Your task to perform on an android device: toggle show notifications on the lock screen Image 0: 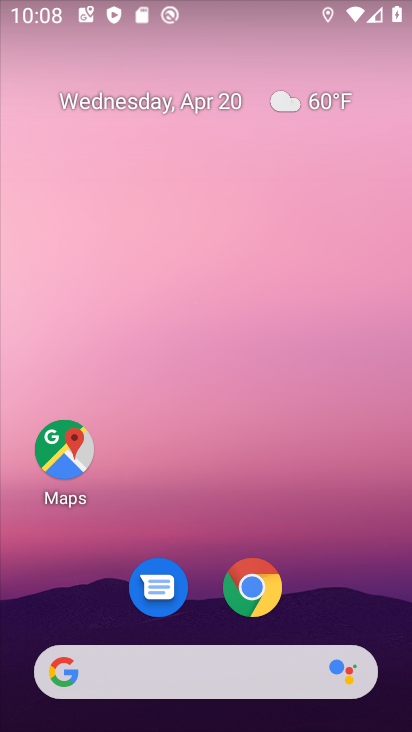
Step 0: drag from (325, 581) to (94, 82)
Your task to perform on an android device: toggle show notifications on the lock screen Image 1: 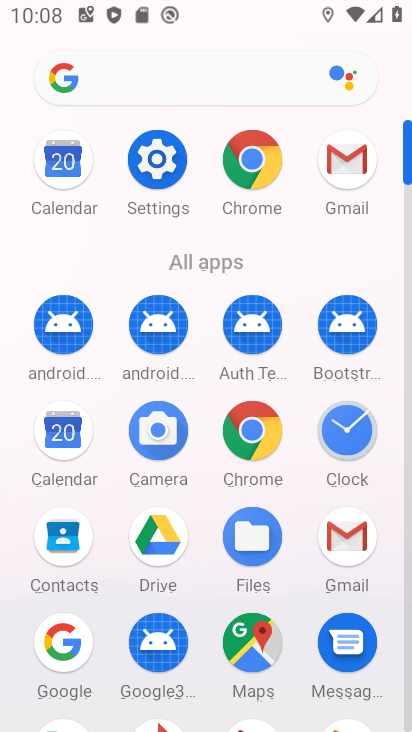
Step 1: click (174, 156)
Your task to perform on an android device: toggle show notifications on the lock screen Image 2: 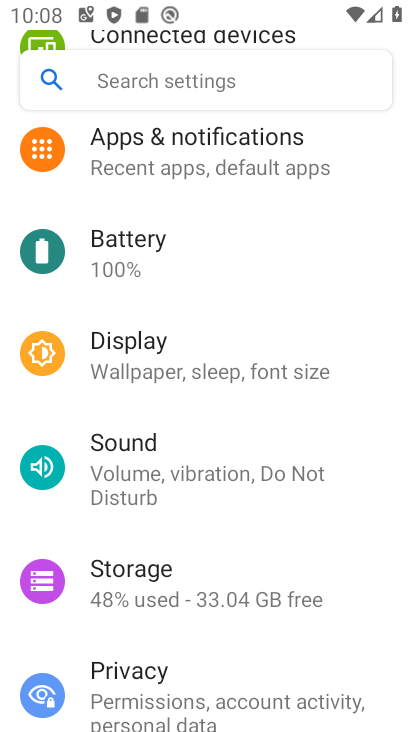
Step 2: drag from (167, 690) to (131, 700)
Your task to perform on an android device: toggle show notifications on the lock screen Image 3: 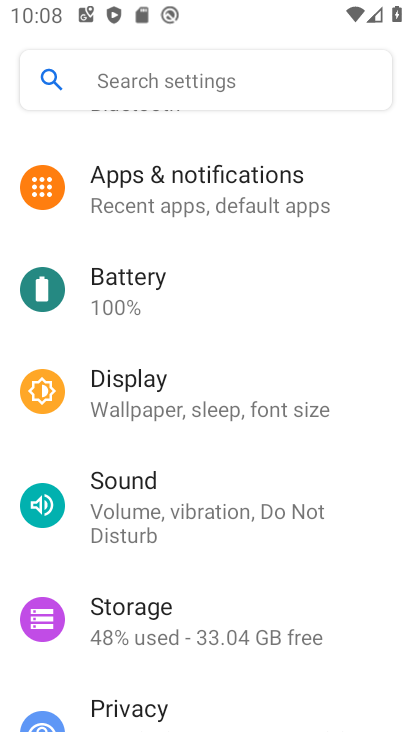
Step 3: drag from (237, 223) to (194, 463)
Your task to perform on an android device: toggle show notifications on the lock screen Image 4: 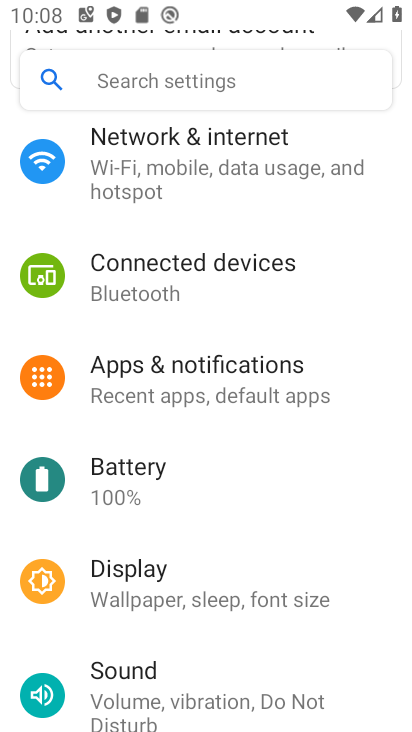
Step 4: click (174, 401)
Your task to perform on an android device: toggle show notifications on the lock screen Image 5: 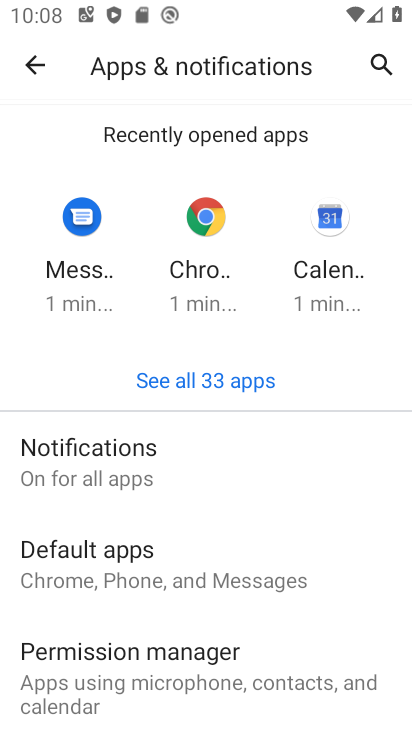
Step 5: click (118, 471)
Your task to perform on an android device: toggle show notifications on the lock screen Image 6: 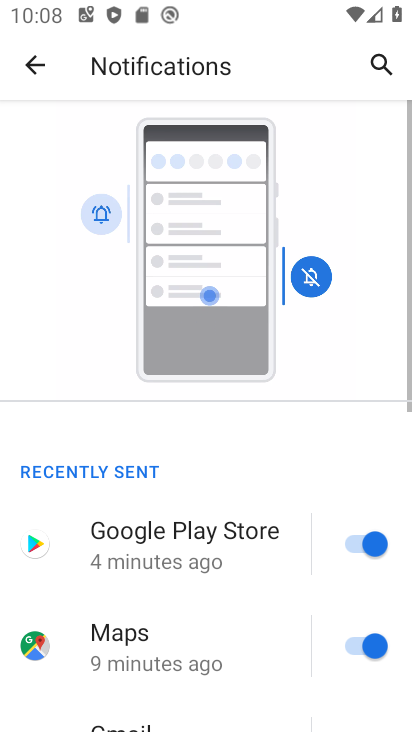
Step 6: drag from (195, 629) to (138, 251)
Your task to perform on an android device: toggle show notifications on the lock screen Image 7: 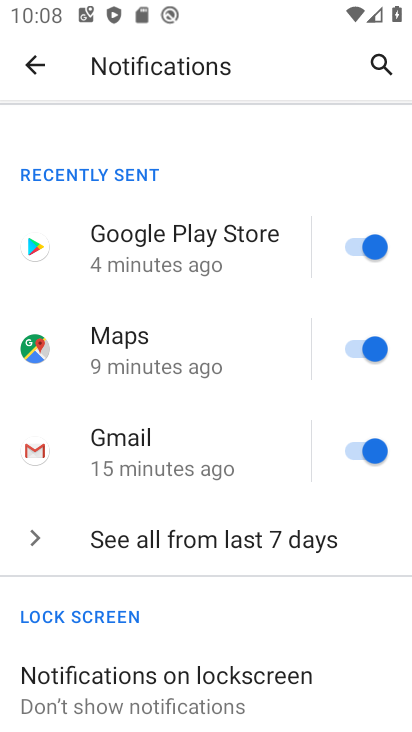
Step 7: click (120, 682)
Your task to perform on an android device: toggle show notifications on the lock screen Image 8: 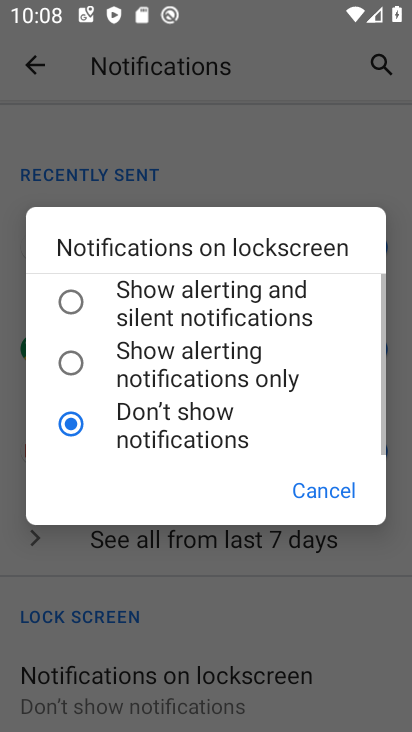
Step 8: click (161, 305)
Your task to perform on an android device: toggle show notifications on the lock screen Image 9: 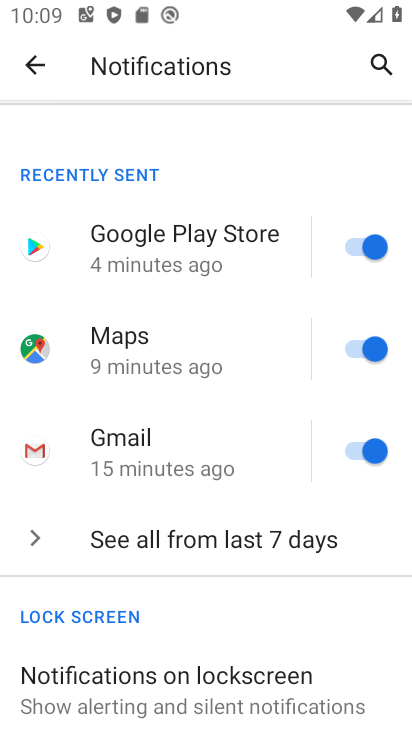
Step 9: task complete